Your task to perform on an android device: Open privacy settings Image 0: 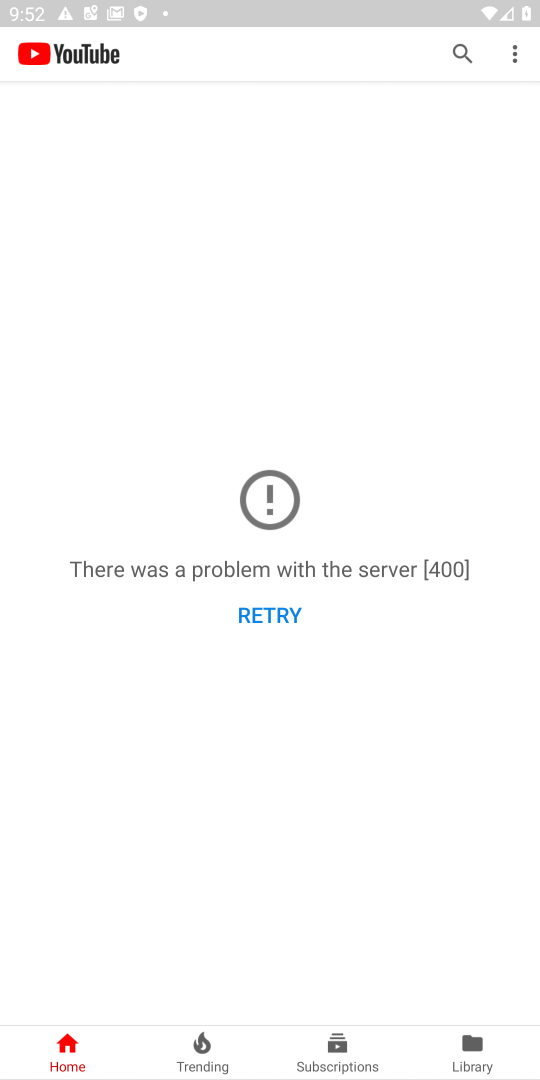
Step 0: press home button
Your task to perform on an android device: Open privacy settings Image 1: 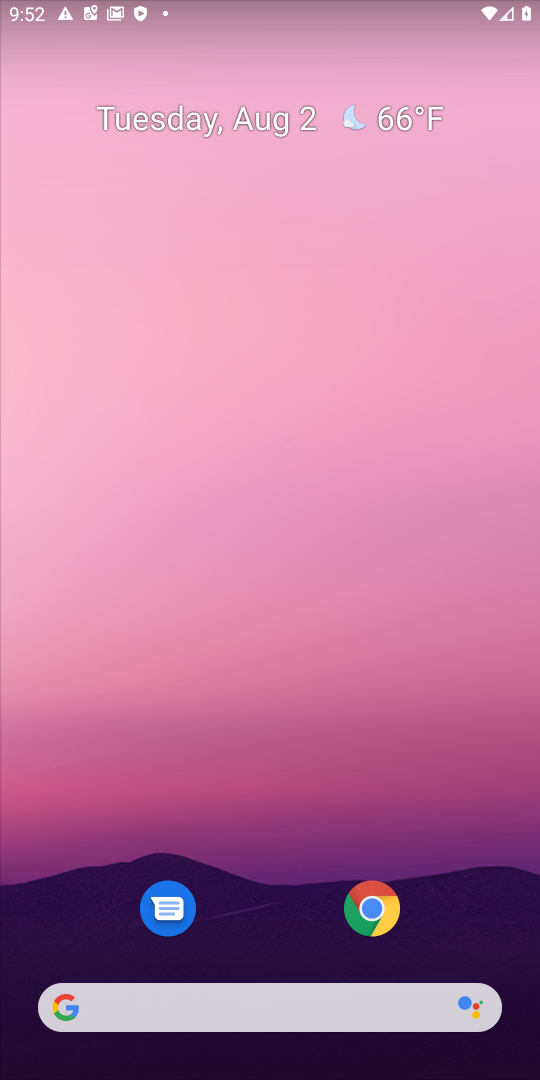
Step 1: drag from (29, 808) to (313, 87)
Your task to perform on an android device: Open privacy settings Image 2: 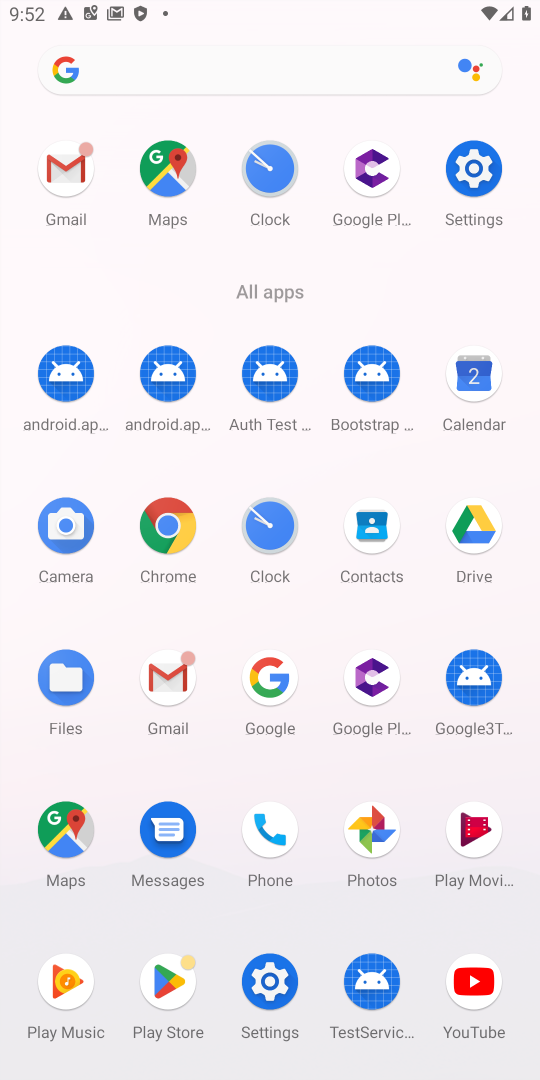
Step 2: click (471, 155)
Your task to perform on an android device: Open privacy settings Image 3: 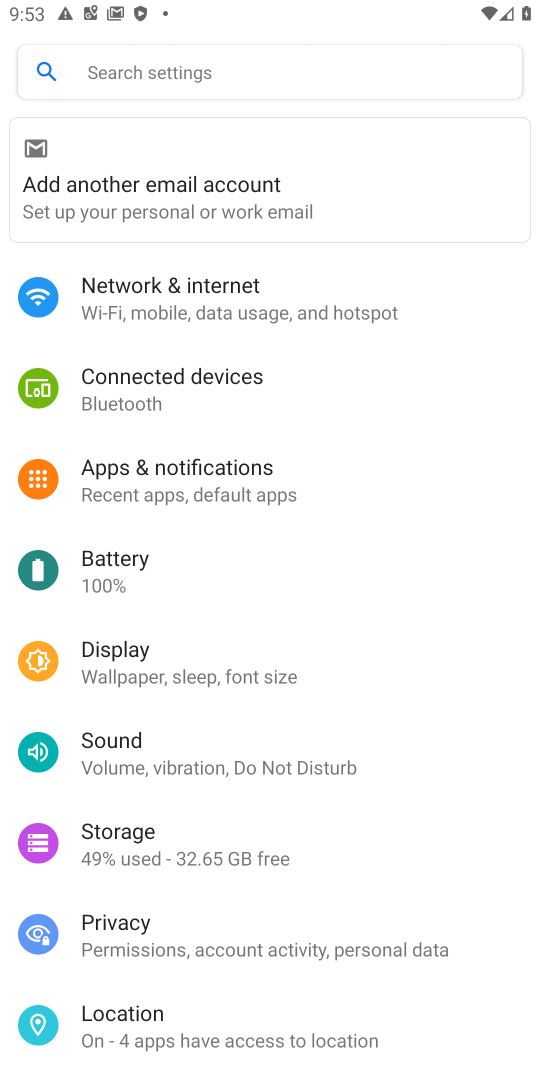
Step 3: click (139, 937)
Your task to perform on an android device: Open privacy settings Image 4: 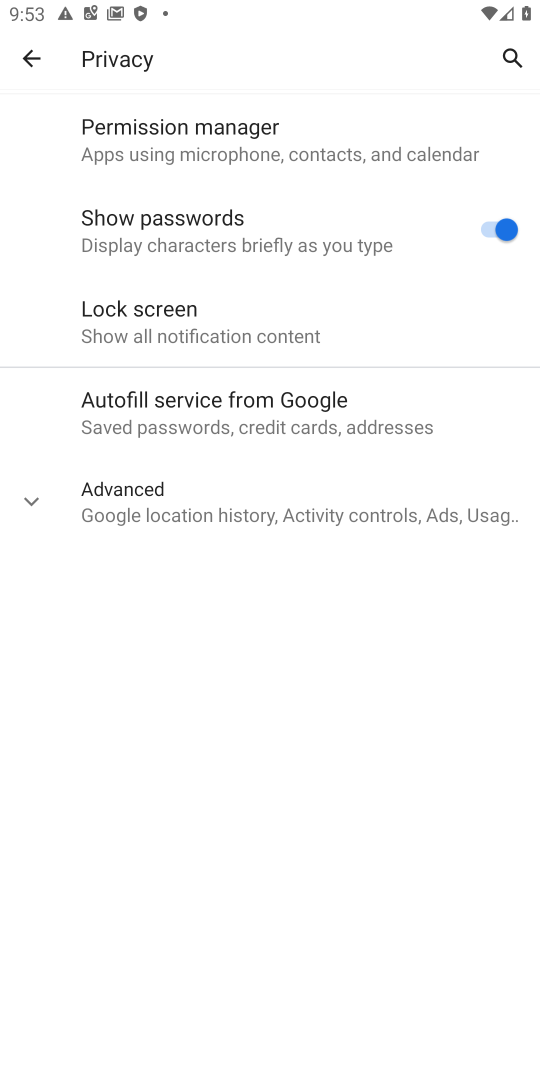
Step 4: task complete